Your task to perform on an android device: toggle translation in the chrome app Image 0: 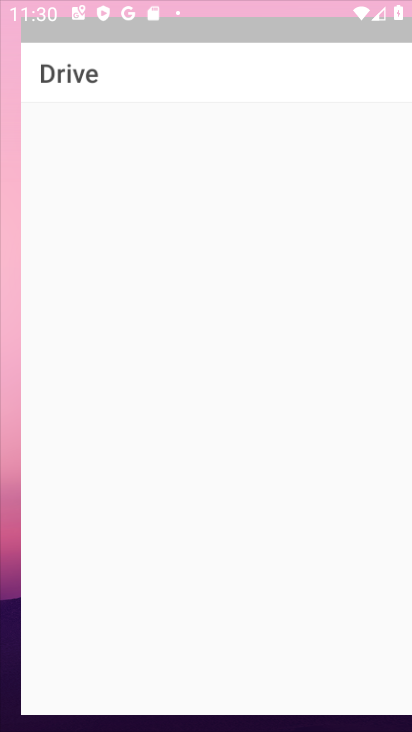
Step 0: press home button
Your task to perform on an android device: toggle translation in the chrome app Image 1: 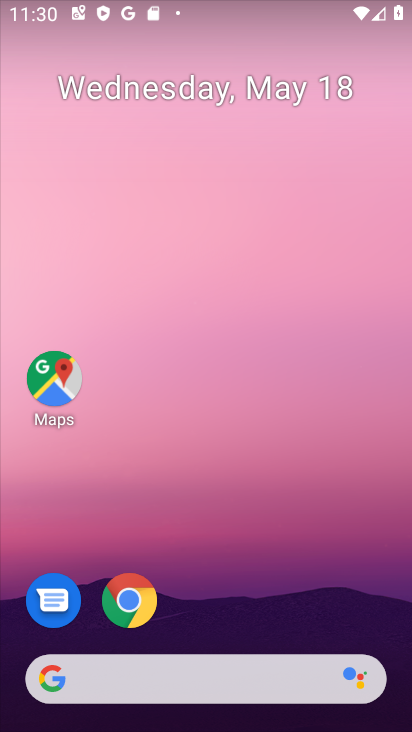
Step 1: click (130, 606)
Your task to perform on an android device: toggle translation in the chrome app Image 2: 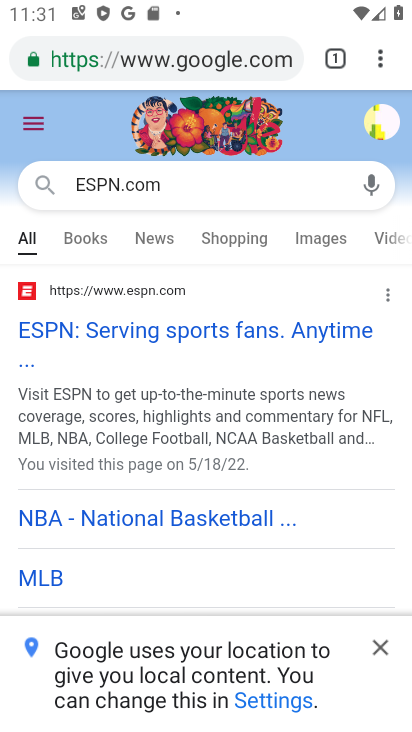
Step 2: click (383, 648)
Your task to perform on an android device: toggle translation in the chrome app Image 3: 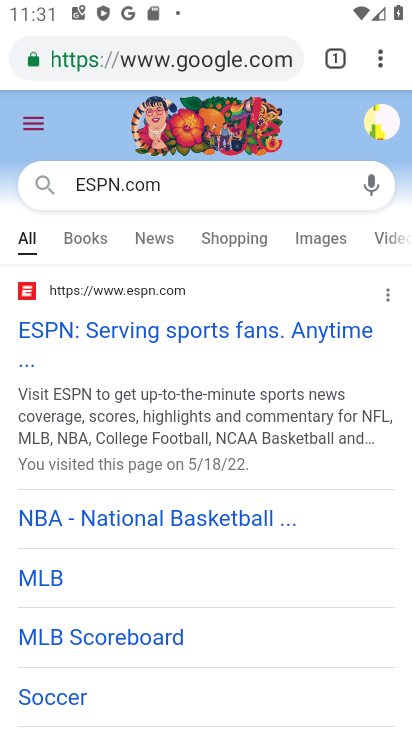
Step 3: click (379, 55)
Your task to perform on an android device: toggle translation in the chrome app Image 4: 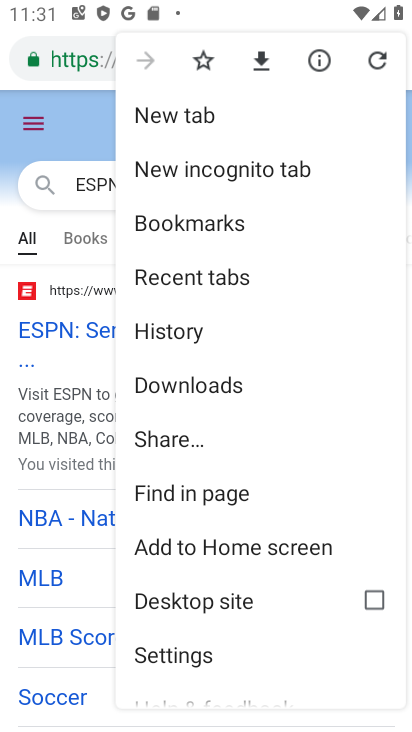
Step 4: click (194, 653)
Your task to perform on an android device: toggle translation in the chrome app Image 5: 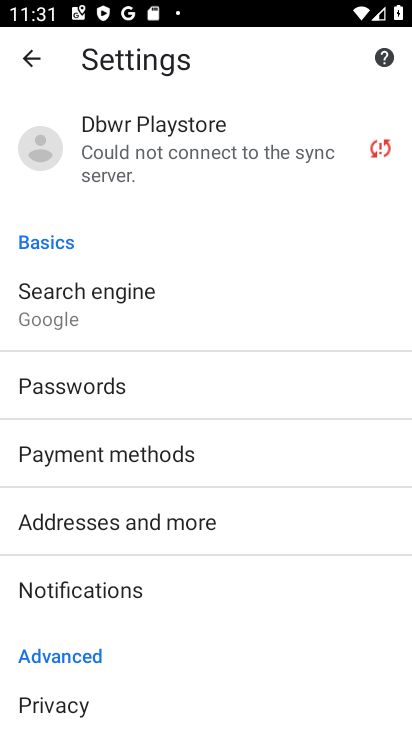
Step 5: drag from (143, 443) to (208, 101)
Your task to perform on an android device: toggle translation in the chrome app Image 6: 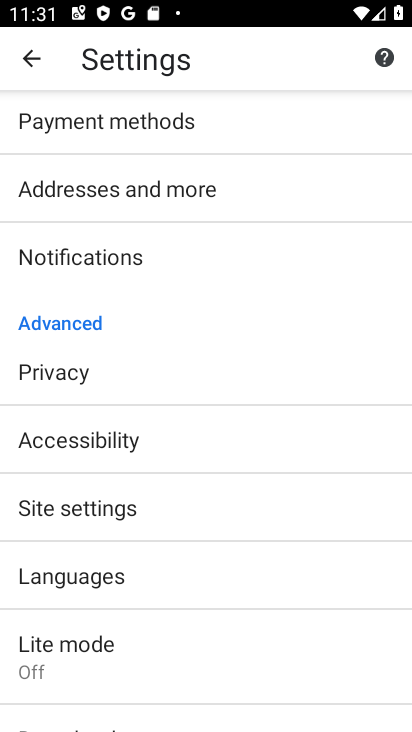
Step 6: drag from (94, 556) to (130, 299)
Your task to perform on an android device: toggle translation in the chrome app Image 7: 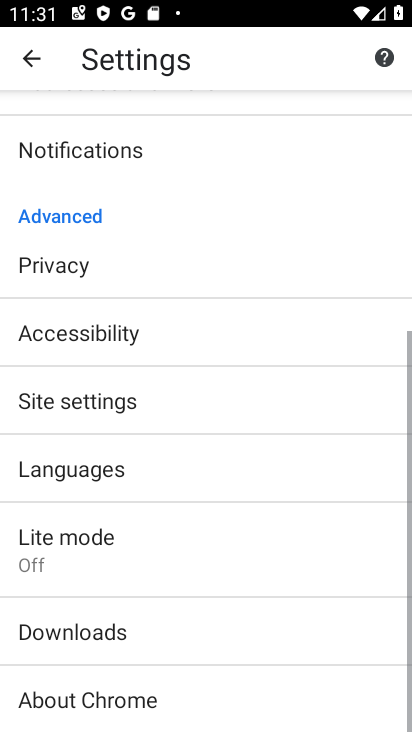
Step 7: click (63, 481)
Your task to perform on an android device: toggle translation in the chrome app Image 8: 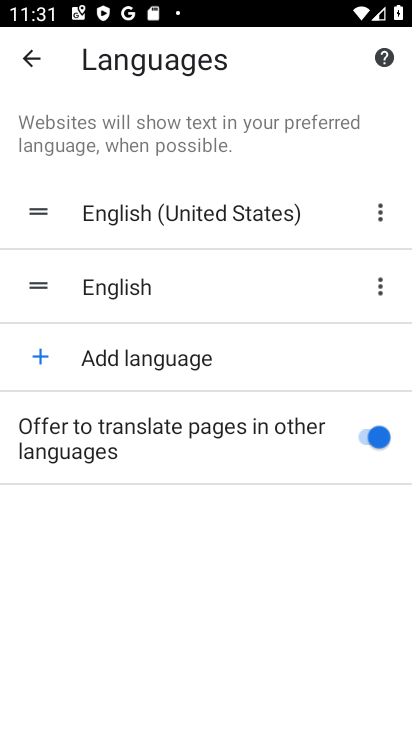
Step 8: click (354, 443)
Your task to perform on an android device: toggle translation in the chrome app Image 9: 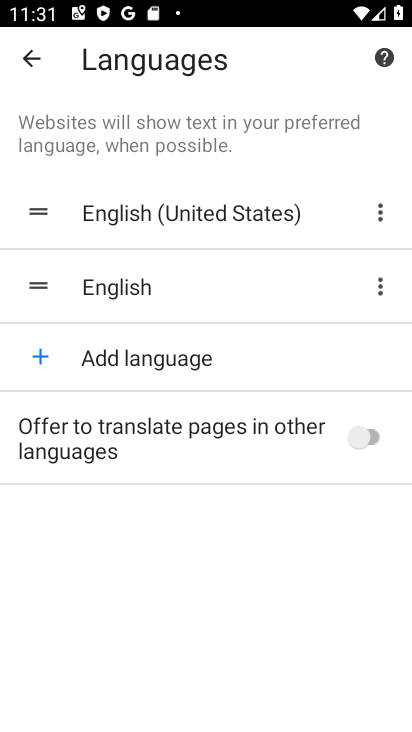
Step 9: task complete